Your task to perform on an android device: set default search engine in the chrome app Image 0: 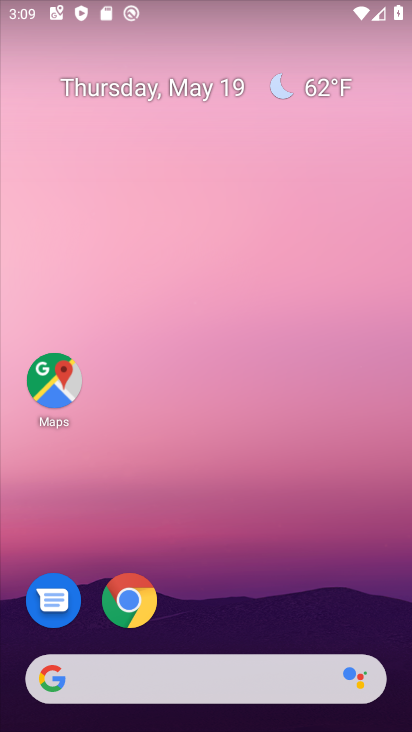
Step 0: press home button
Your task to perform on an android device: set default search engine in the chrome app Image 1: 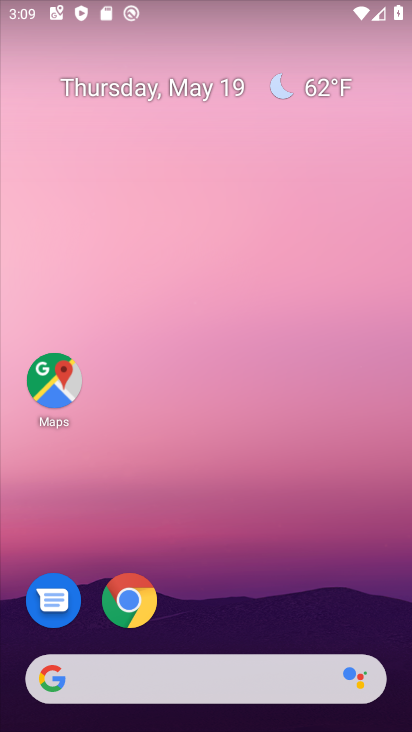
Step 1: drag from (14, 683) to (359, 169)
Your task to perform on an android device: set default search engine in the chrome app Image 2: 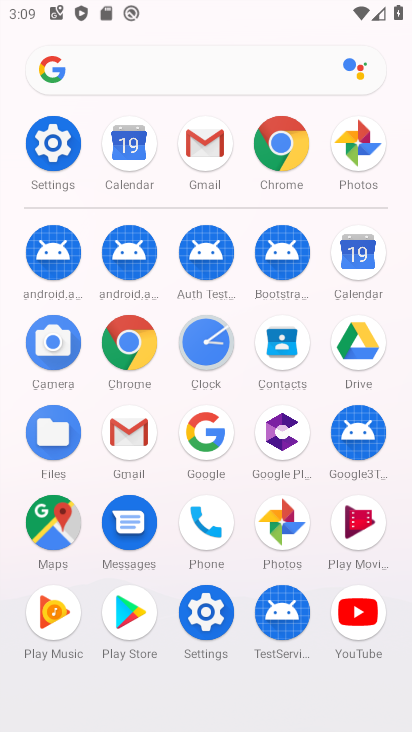
Step 2: click (146, 359)
Your task to perform on an android device: set default search engine in the chrome app Image 3: 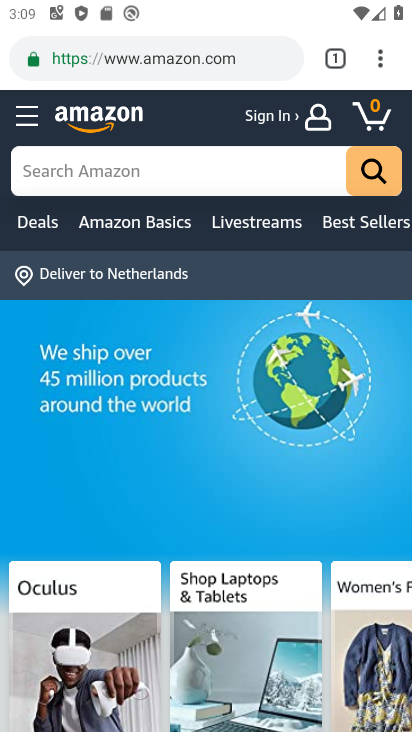
Step 3: click (370, 64)
Your task to perform on an android device: set default search engine in the chrome app Image 4: 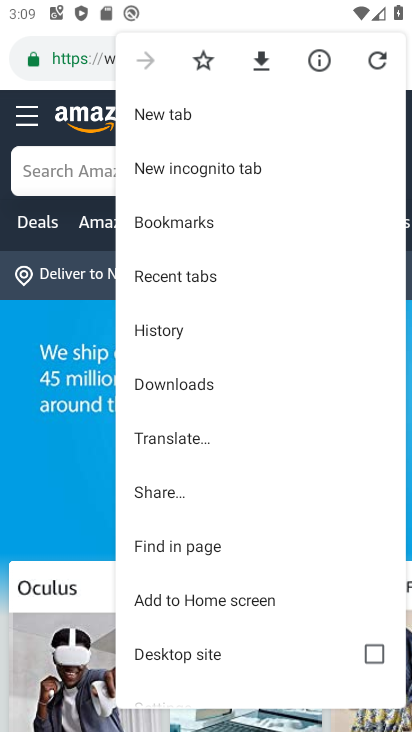
Step 4: drag from (149, 718) to (297, 280)
Your task to perform on an android device: set default search engine in the chrome app Image 5: 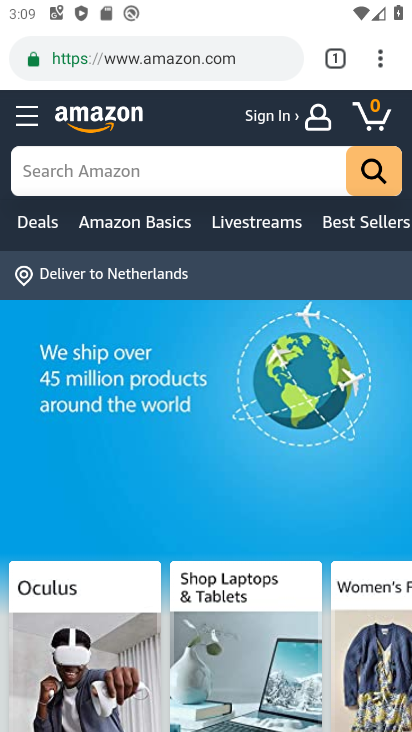
Step 5: click (377, 53)
Your task to perform on an android device: set default search engine in the chrome app Image 6: 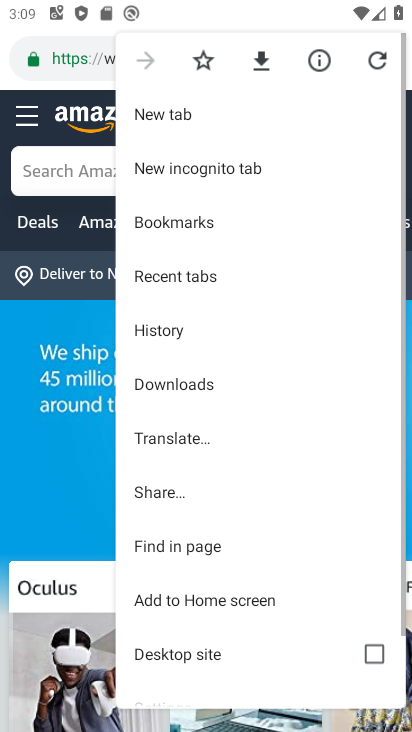
Step 6: drag from (147, 620) to (315, 136)
Your task to perform on an android device: set default search engine in the chrome app Image 7: 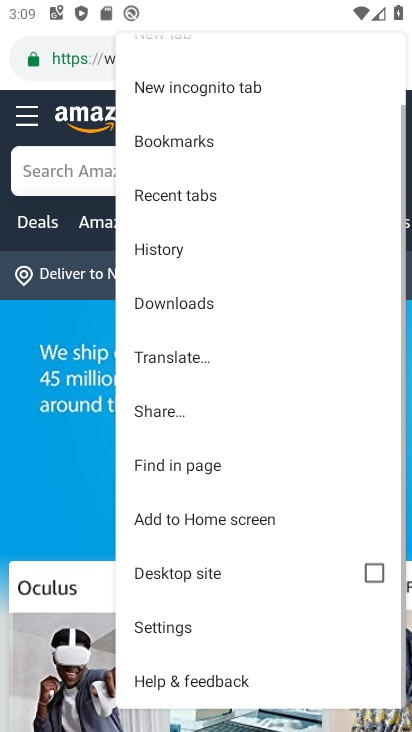
Step 7: click (190, 626)
Your task to perform on an android device: set default search engine in the chrome app Image 8: 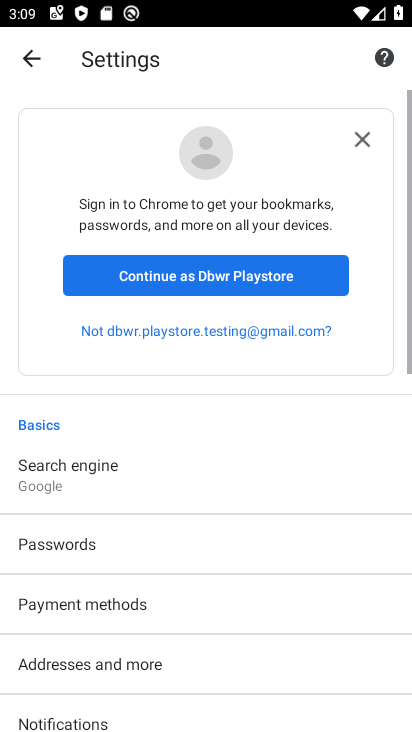
Step 8: click (79, 478)
Your task to perform on an android device: set default search engine in the chrome app Image 9: 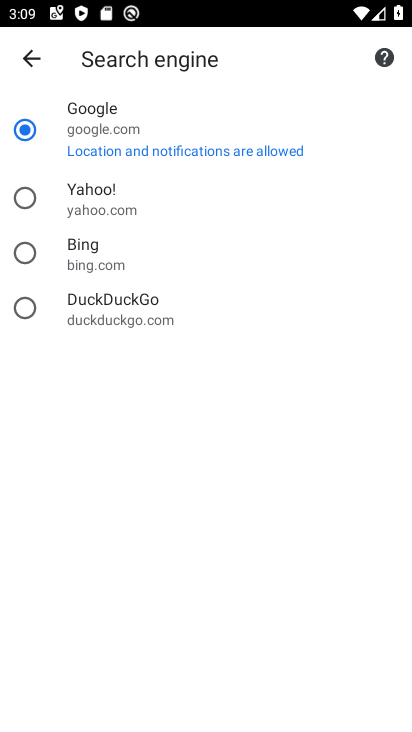
Step 9: task complete